Your task to perform on an android device: What's a good restaurant in Las Vegas? Image 0: 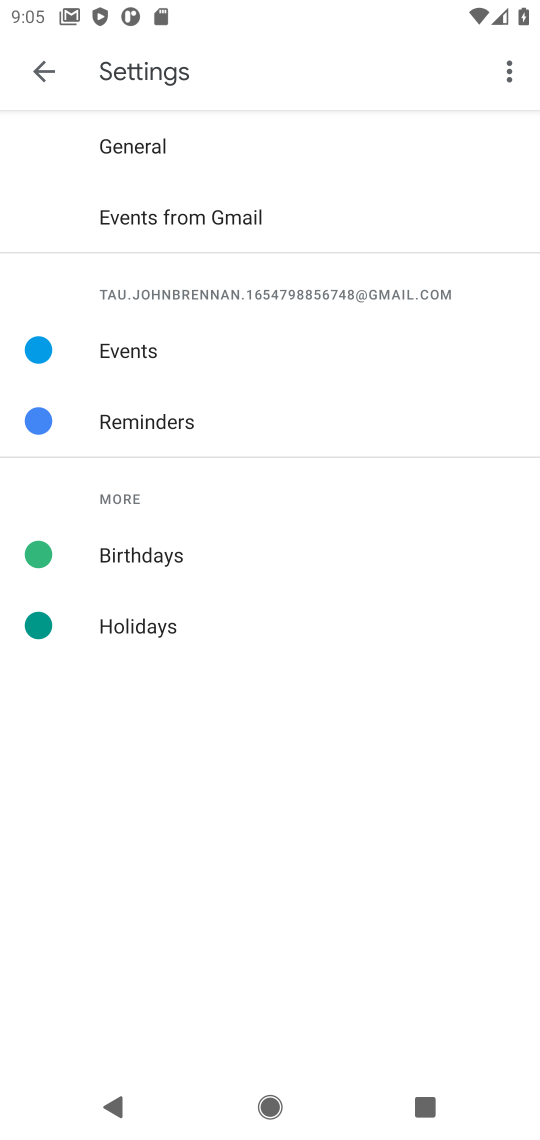
Step 0: press home button
Your task to perform on an android device: What's a good restaurant in Las Vegas? Image 1: 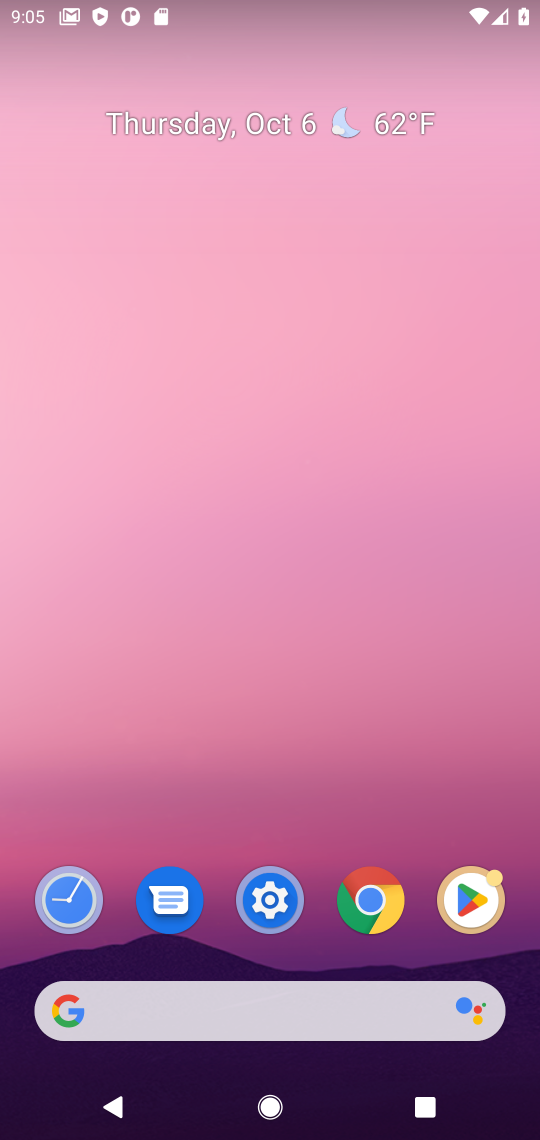
Step 1: click (329, 1001)
Your task to perform on an android device: What's a good restaurant in Las Vegas? Image 2: 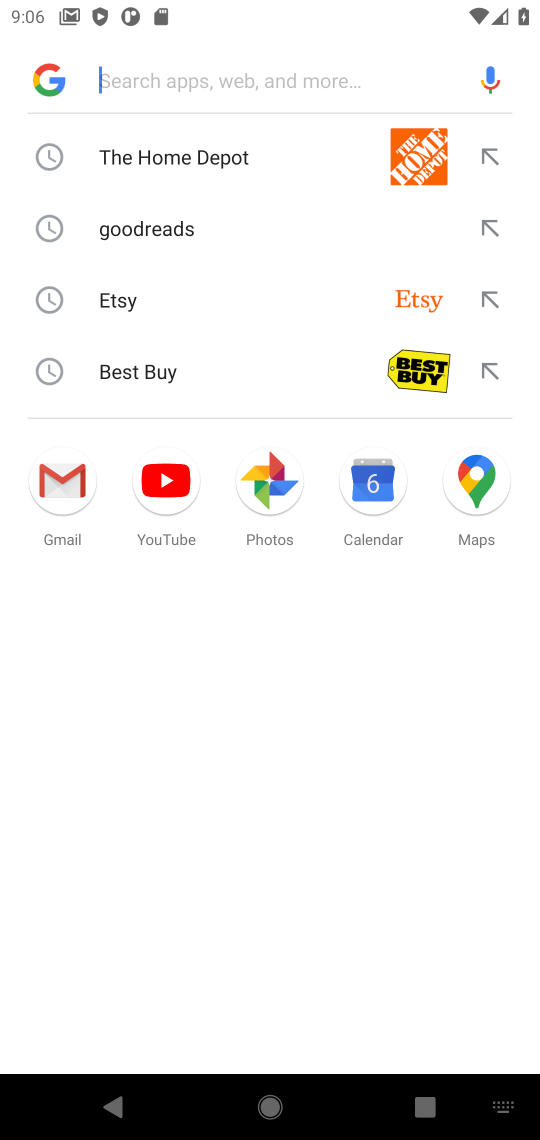
Step 2: press enter
Your task to perform on an android device: What's a good restaurant in Las Vegas? Image 3: 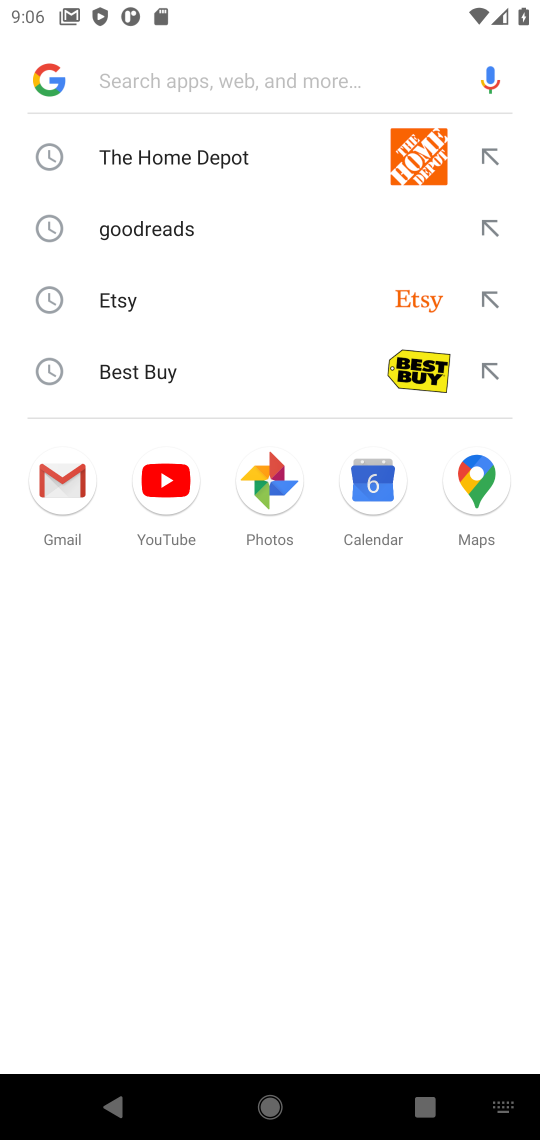
Step 3: type "What's a good restaurant in Las Vegas?"
Your task to perform on an android device: What's a good restaurant in Las Vegas? Image 4: 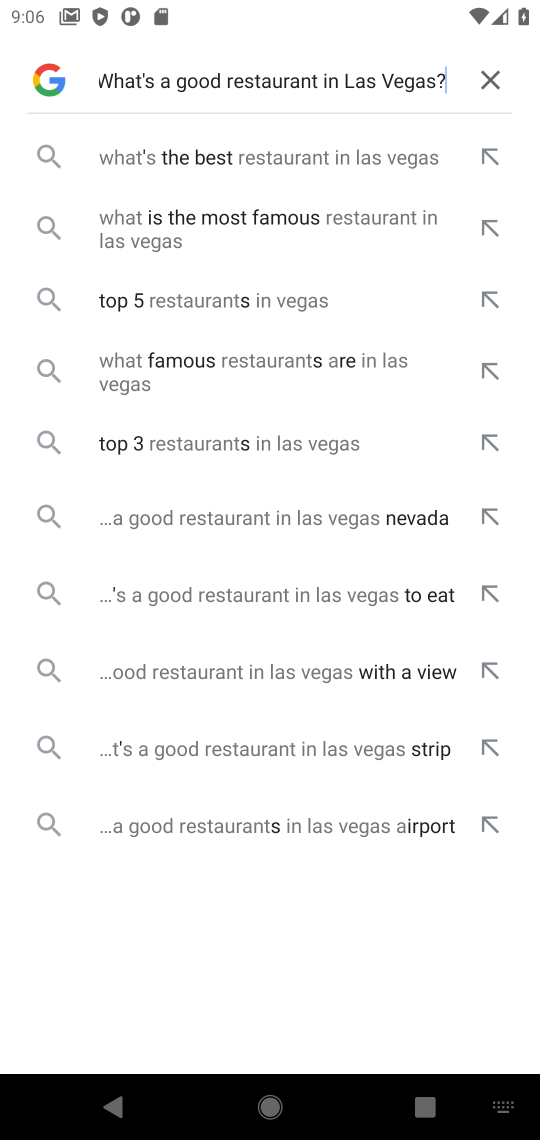
Step 4: press enter
Your task to perform on an android device: What's a good restaurant in Las Vegas? Image 5: 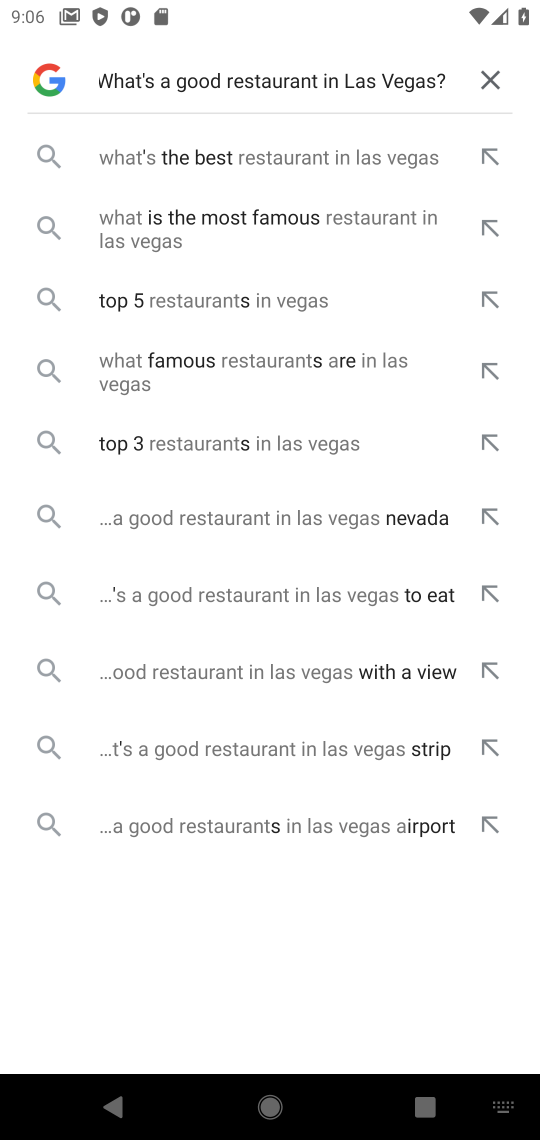
Step 5: type "What's a good restaurant in Las Vegas?"
Your task to perform on an android device: What's a good restaurant in Las Vegas? Image 6: 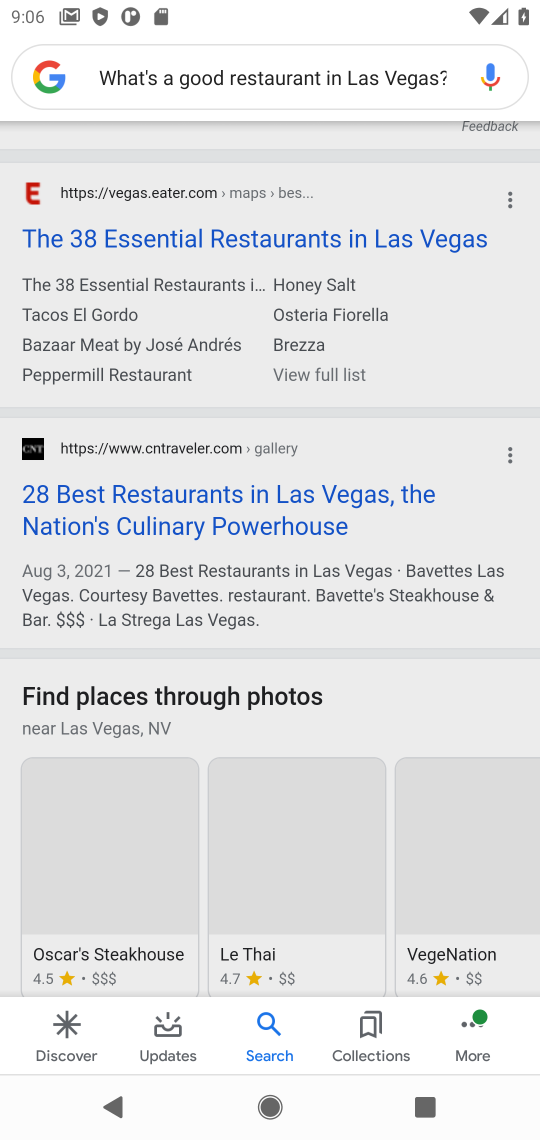
Step 6: press enter
Your task to perform on an android device: What's a good restaurant in Las Vegas? Image 7: 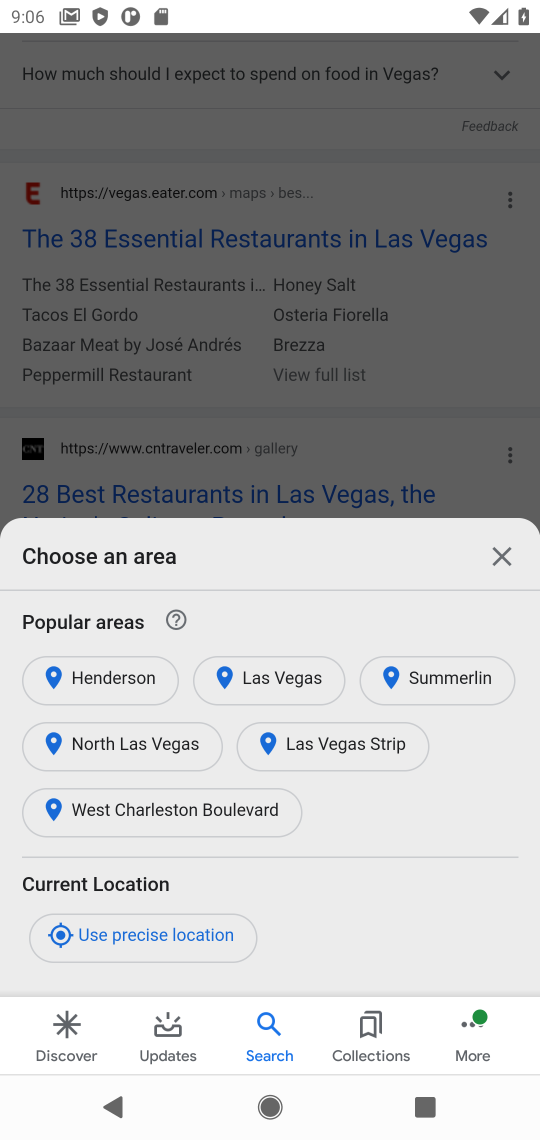
Step 7: click (500, 555)
Your task to perform on an android device: What's a good restaurant in Las Vegas? Image 8: 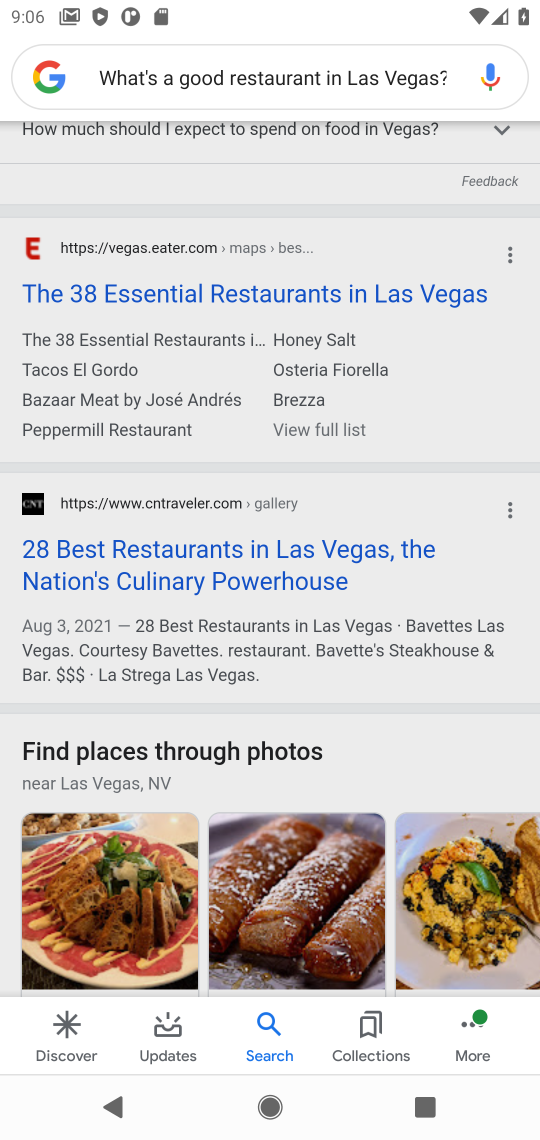
Step 8: click (322, 572)
Your task to perform on an android device: What's a good restaurant in Las Vegas? Image 9: 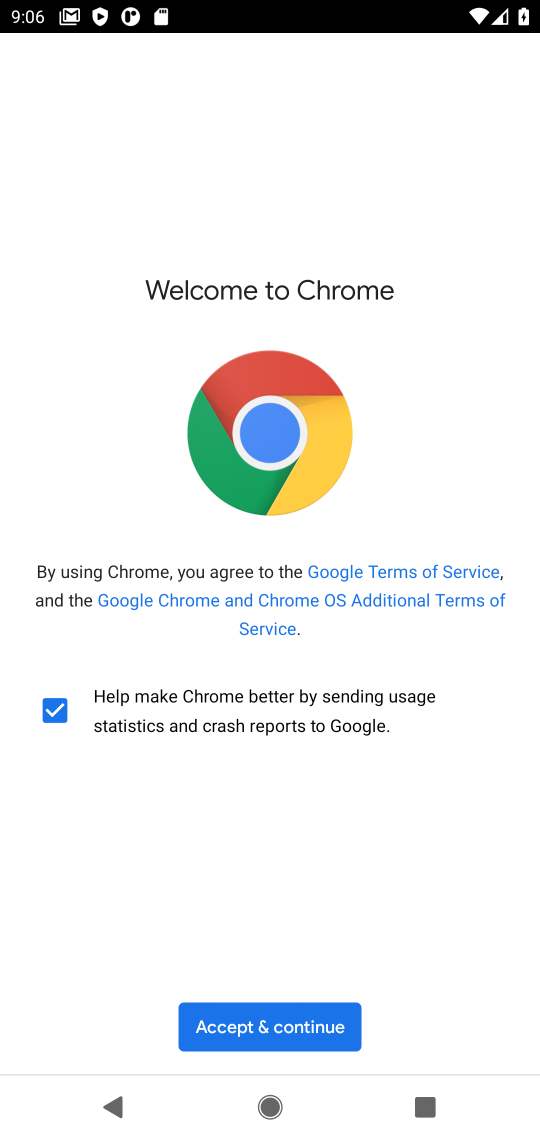
Step 9: click (263, 1026)
Your task to perform on an android device: What's a good restaurant in Las Vegas? Image 10: 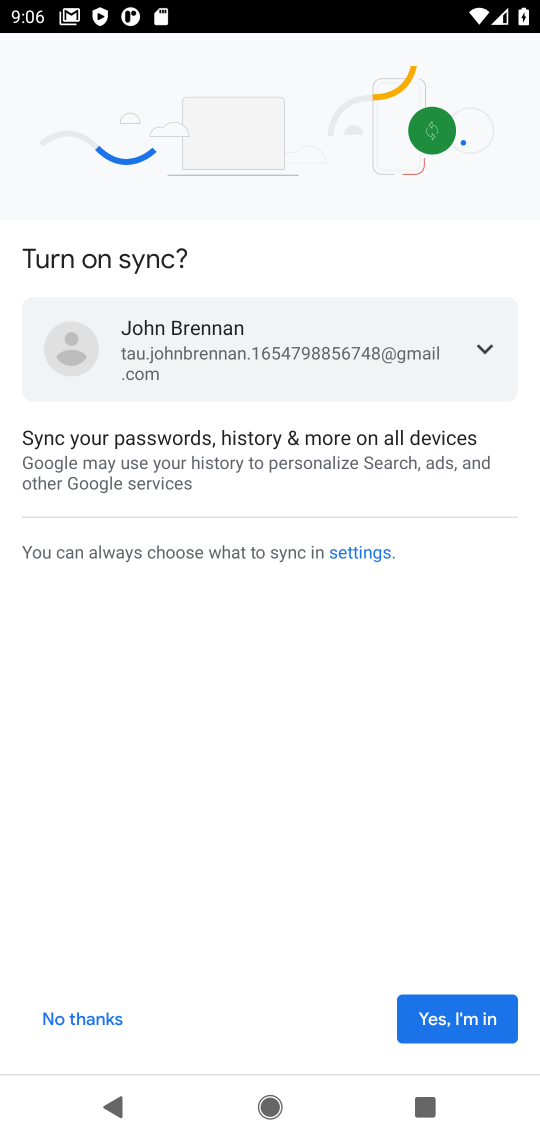
Step 10: click (425, 1030)
Your task to perform on an android device: What's a good restaurant in Las Vegas? Image 11: 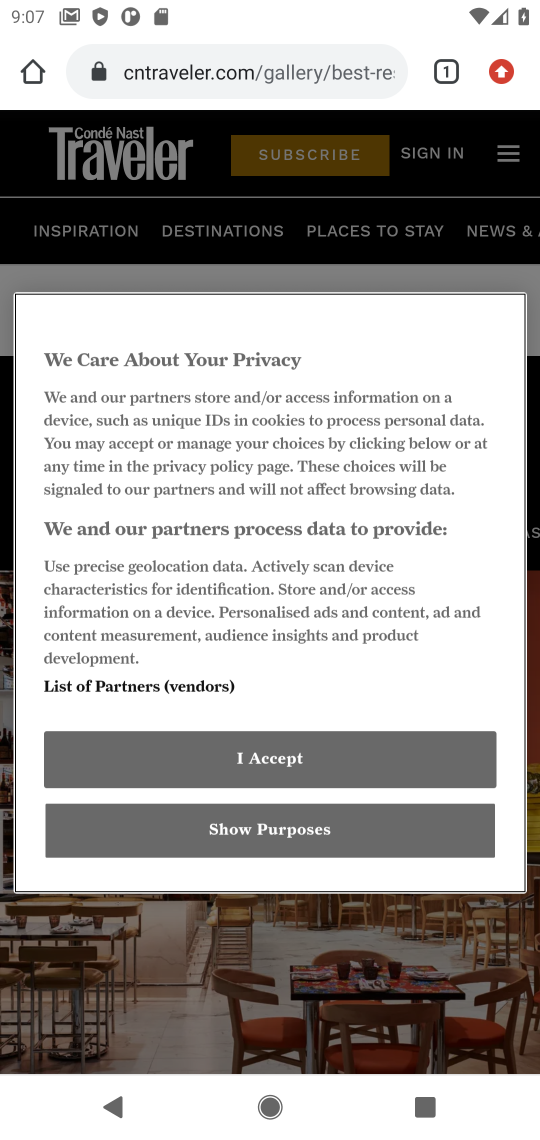
Step 11: click (323, 757)
Your task to perform on an android device: What's a good restaurant in Las Vegas? Image 12: 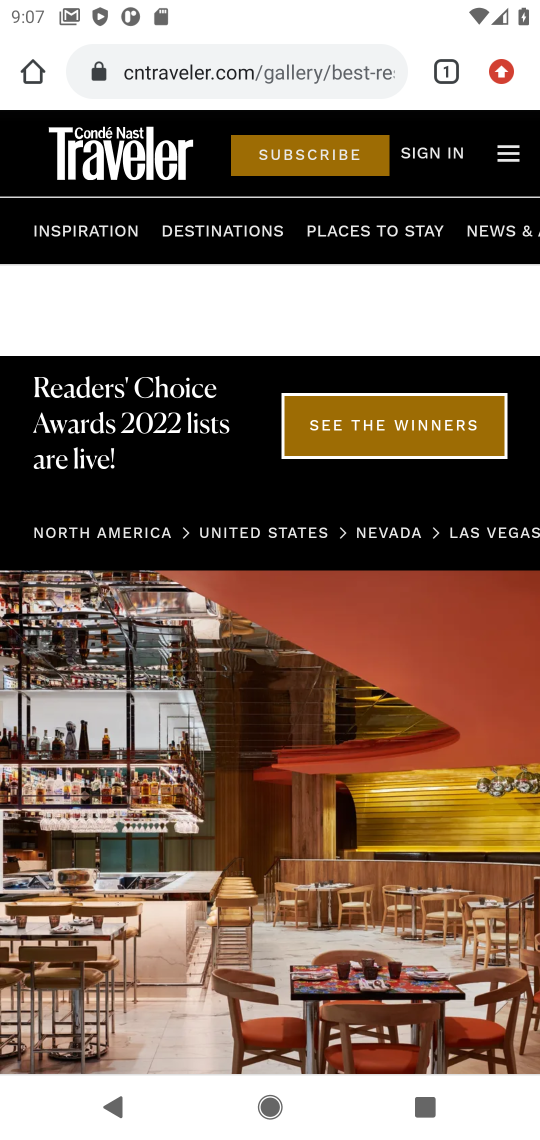
Step 12: task complete